Your task to perform on an android device: Open privacy settings Image 0: 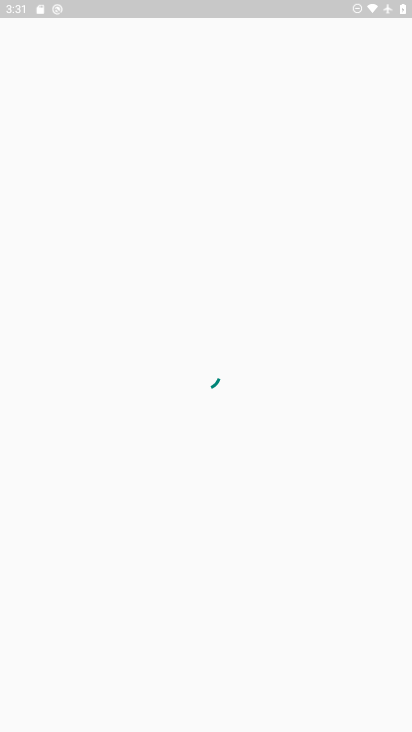
Step 0: press home button
Your task to perform on an android device: Open privacy settings Image 1: 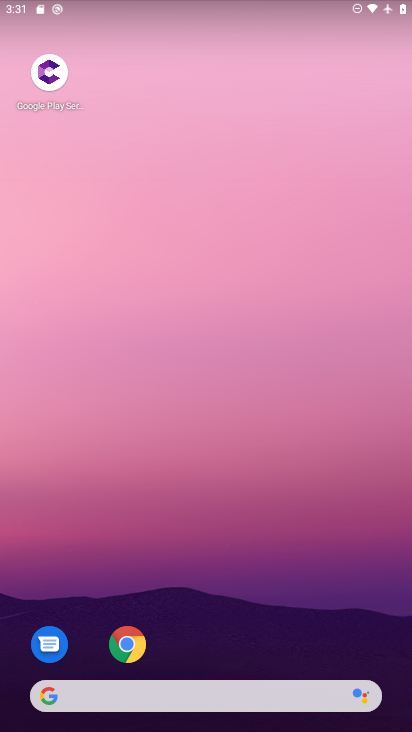
Step 1: drag from (247, 119) to (236, 3)
Your task to perform on an android device: Open privacy settings Image 2: 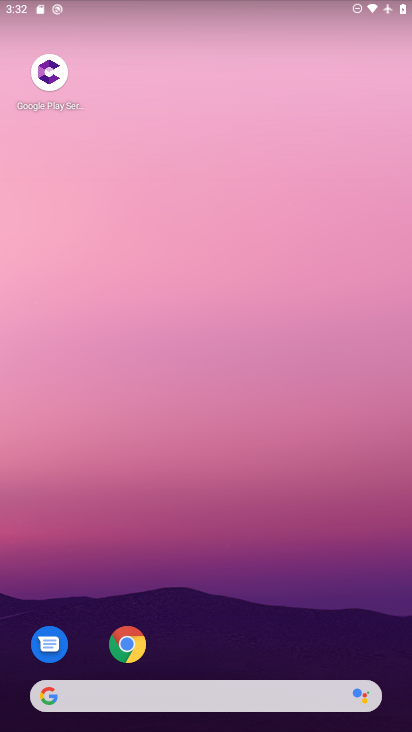
Step 2: drag from (249, 628) to (259, 31)
Your task to perform on an android device: Open privacy settings Image 3: 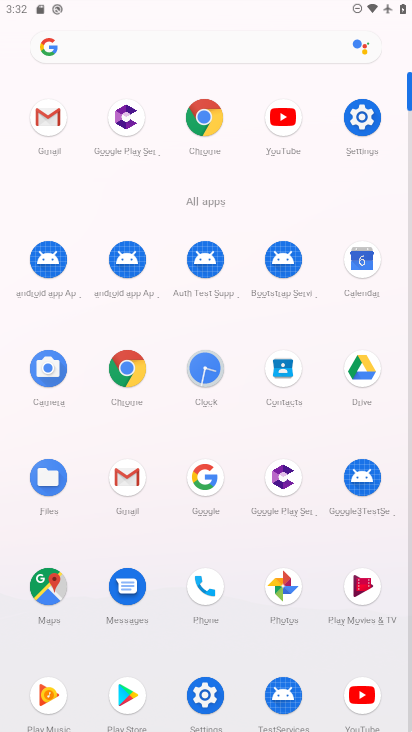
Step 3: click (363, 114)
Your task to perform on an android device: Open privacy settings Image 4: 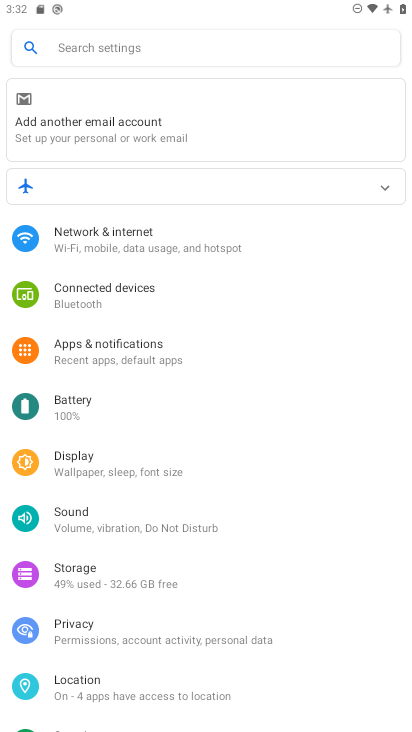
Step 4: click (90, 621)
Your task to perform on an android device: Open privacy settings Image 5: 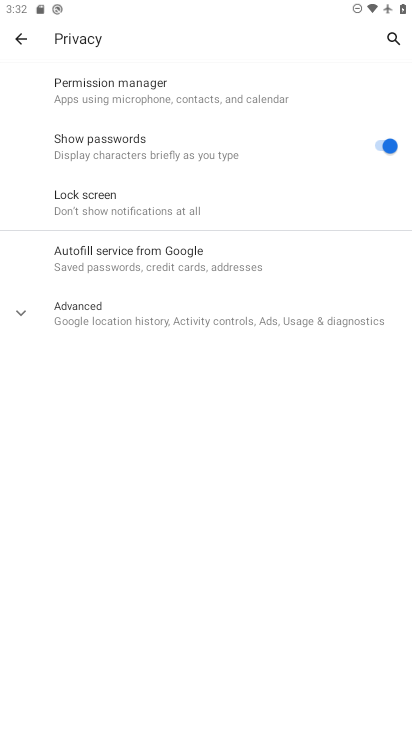
Step 5: task complete